Your task to perform on an android device: turn notification dots off Image 0: 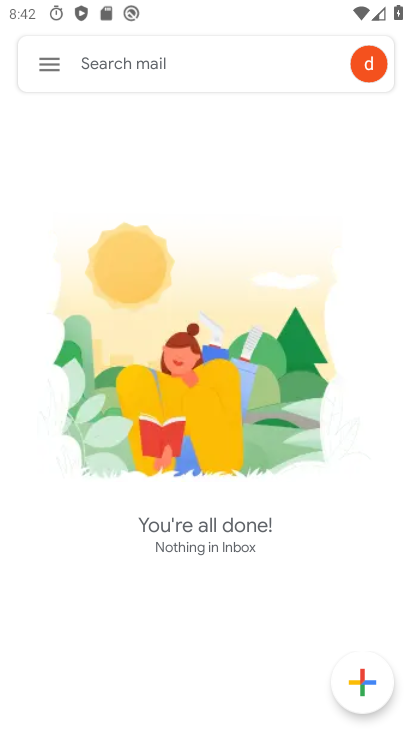
Step 0: press back button
Your task to perform on an android device: turn notification dots off Image 1: 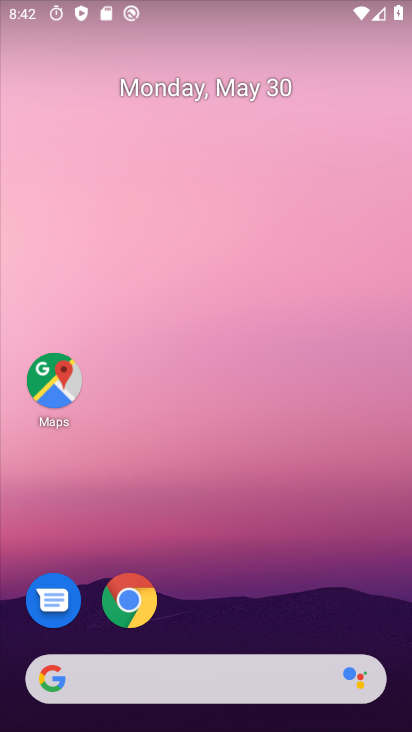
Step 1: drag from (304, 501) to (246, 19)
Your task to perform on an android device: turn notification dots off Image 2: 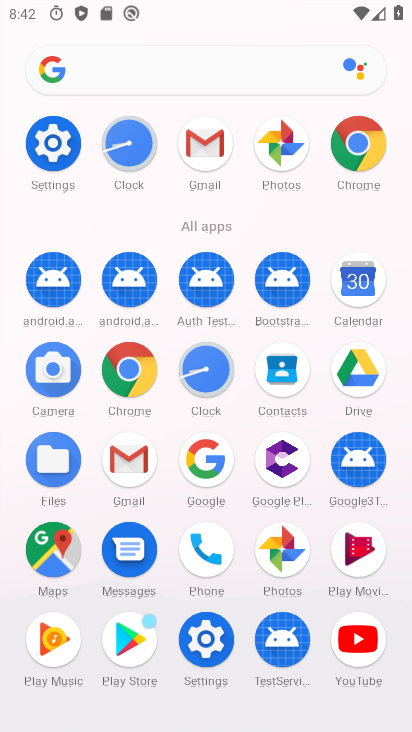
Step 2: click (50, 137)
Your task to perform on an android device: turn notification dots off Image 3: 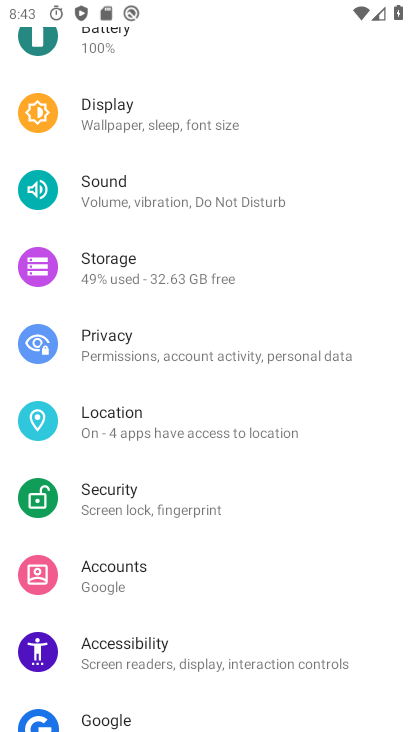
Step 3: drag from (215, 63) to (244, 445)
Your task to perform on an android device: turn notification dots off Image 4: 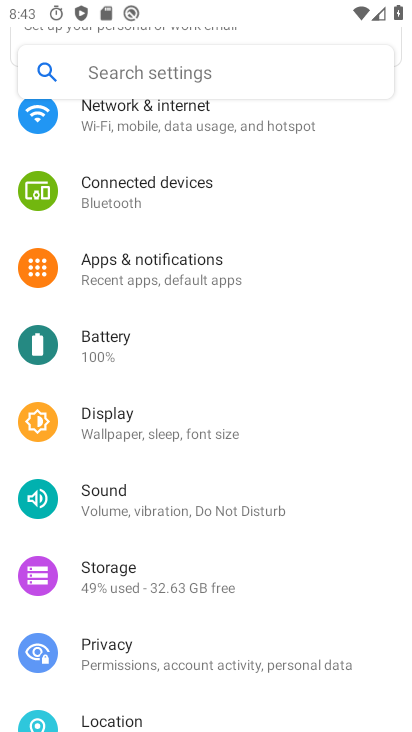
Step 4: click (192, 262)
Your task to perform on an android device: turn notification dots off Image 5: 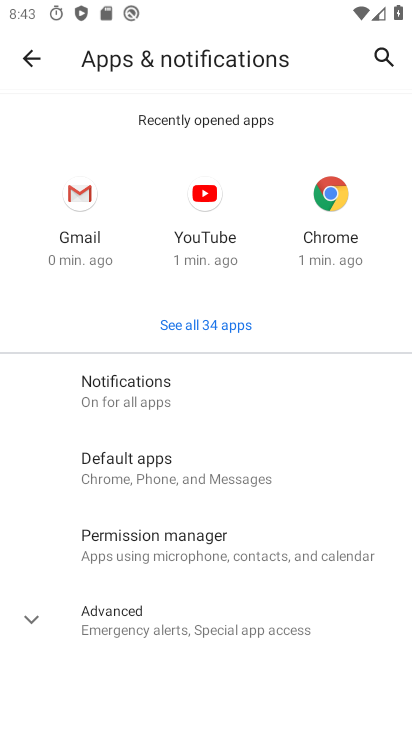
Step 5: click (33, 559)
Your task to perform on an android device: turn notification dots off Image 6: 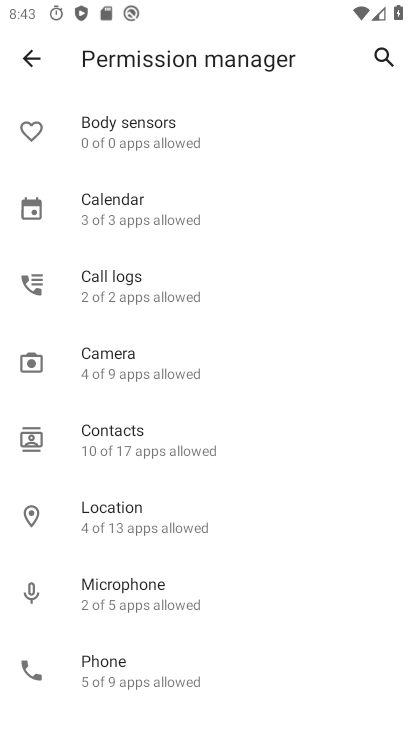
Step 6: click (34, 57)
Your task to perform on an android device: turn notification dots off Image 7: 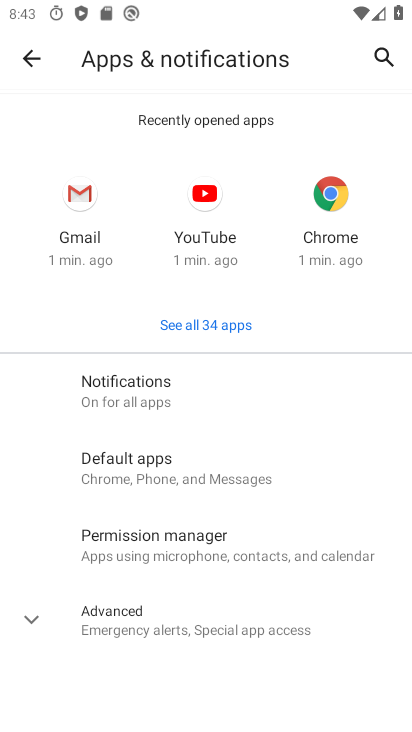
Step 7: click (166, 375)
Your task to perform on an android device: turn notification dots off Image 8: 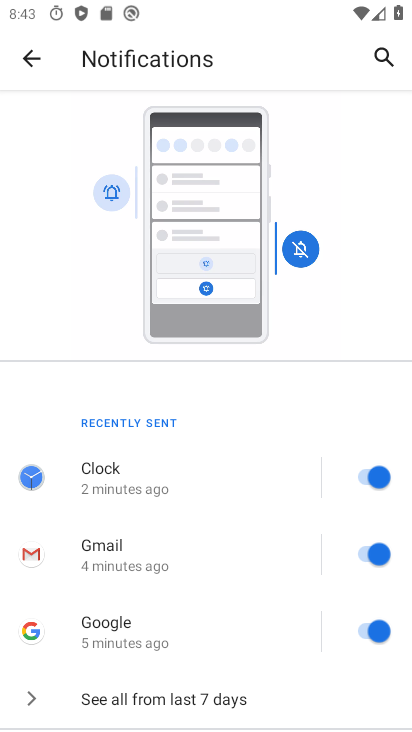
Step 8: drag from (241, 577) to (233, 101)
Your task to perform on an android device: turn notification dots off Image 9: 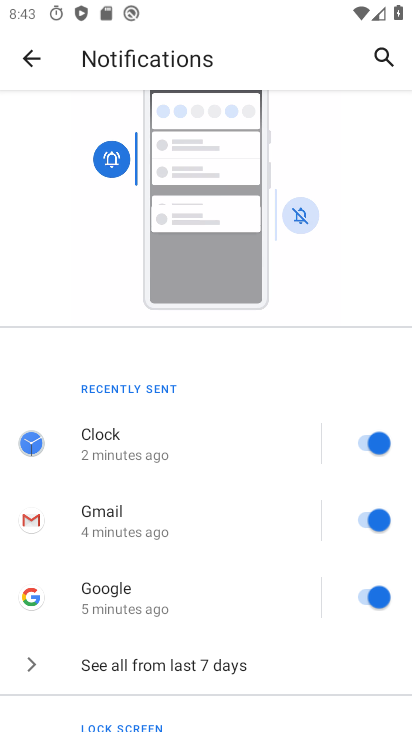
Step 9: drag from (217, 584) to (208, 97)
Your task to perform on an android device: turn notification dots off Image 10: 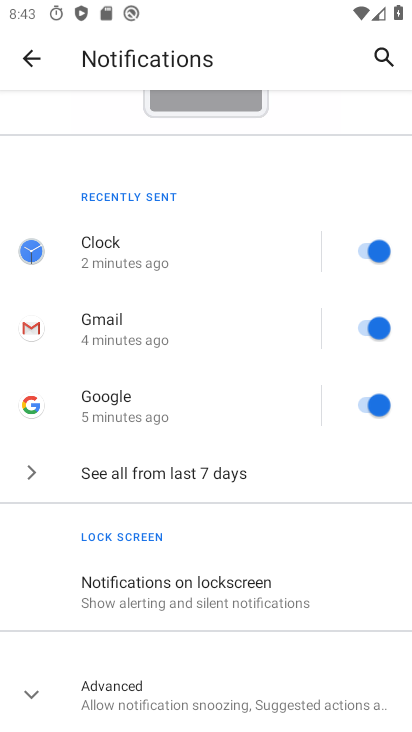
Step 10: click (38, 684)
Your task to perform on an android device: turn notification dots off Image 11: 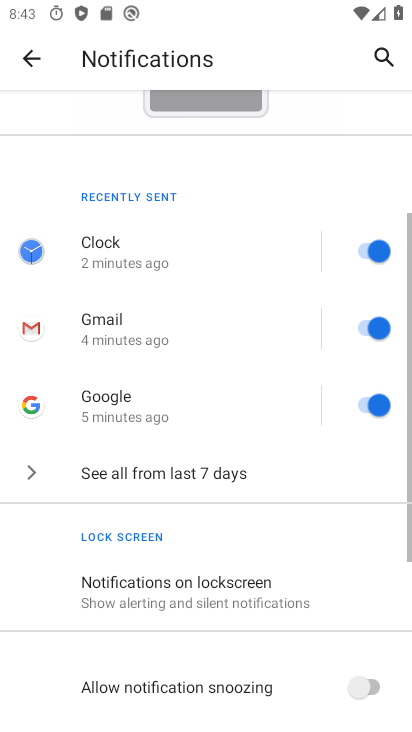
Step 11: drag from (268, 592) to (253, 165)
Your task to perform on an android device: turn notification dots off Image 12: 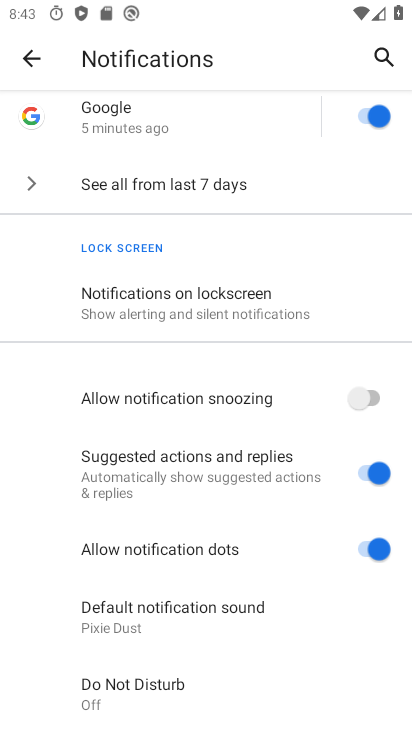
Step 12: click (372, 540)
Your task to perform on an android device: turn notification dots off Image 13: 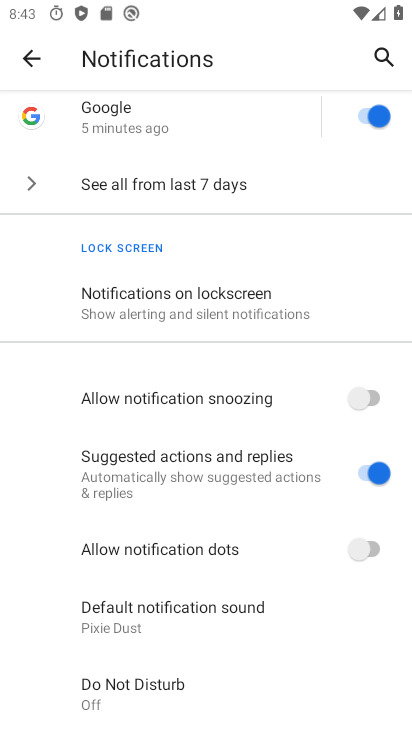
Step 13: task complete